Your task to perform on an android device: set the timer Image 0: 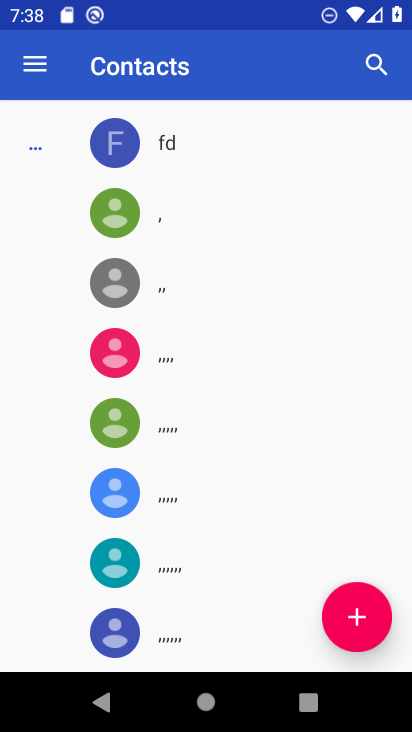
Step 0: press home button
Your task to perform on an android device: set the timer Image 1: 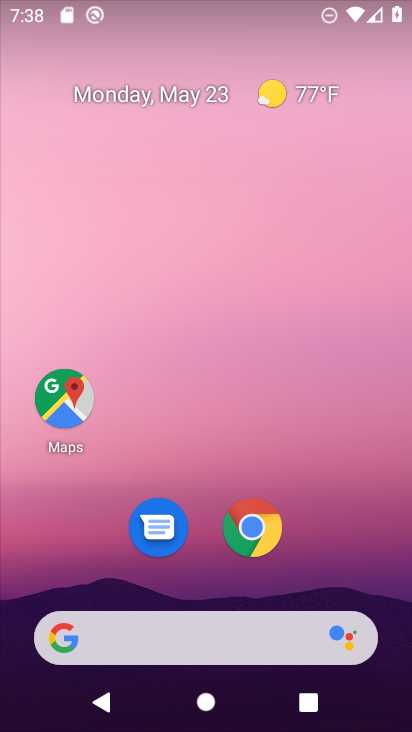
Step 1: drag from (243, 668) to (162, 107)
Your task to perform on an android device: set the timer Image 2: 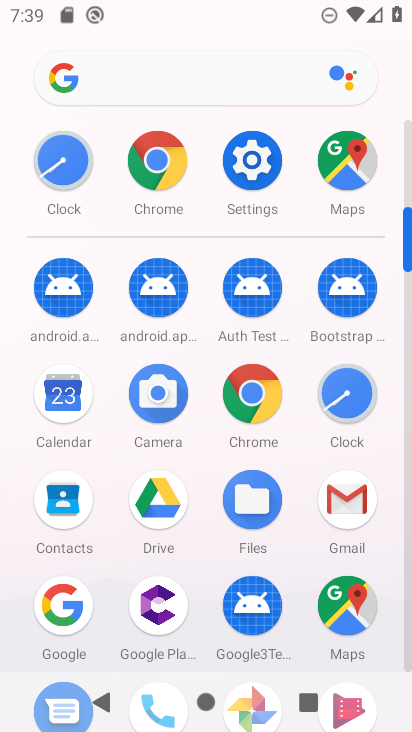
Step 2: click (68, 189)
Your task to perform on an android device: set the timer Image 3: 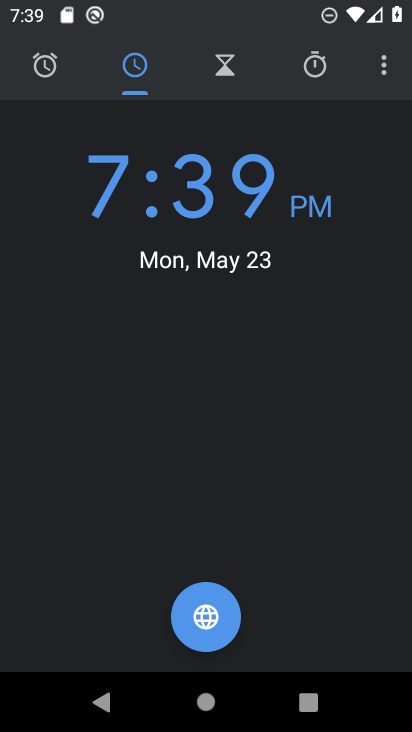
Step 3: click (311, 88)
Your task to perform on an android device: set the timer Image 4: 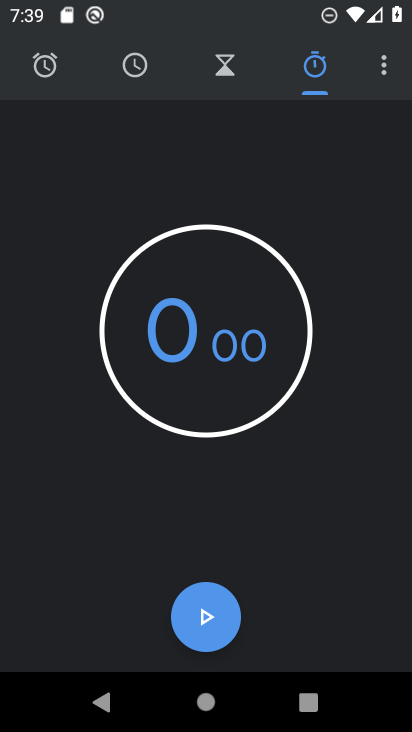
Step 4: click (229, 68)
Your task to perform on an android device: set the timer Image 5: 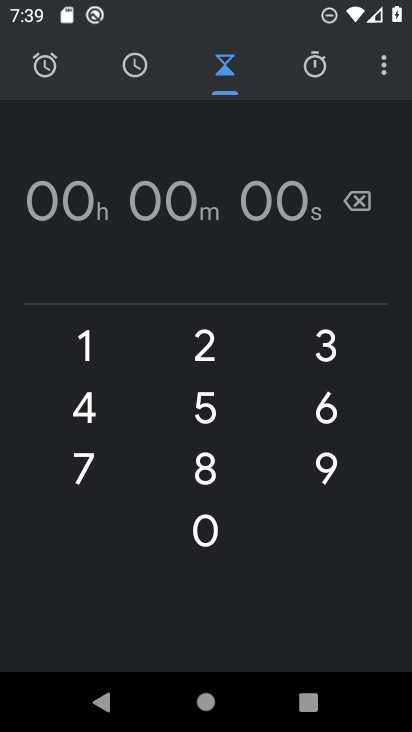
Step 5: click (215, 398)
Your task to perform on an android device: set the timer Image 6: 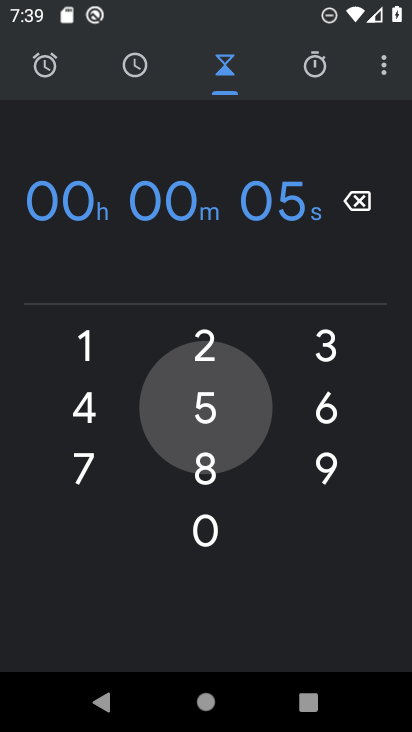
Step 6: click (210, 460)
Your task to perform on an android device: set the timer Image 7: 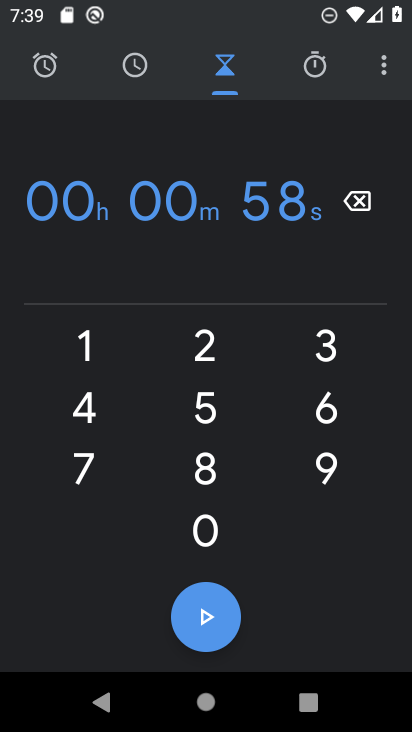
Step 7: click (113, 398)
Your task to perform on an android device: set the timer Image 8: 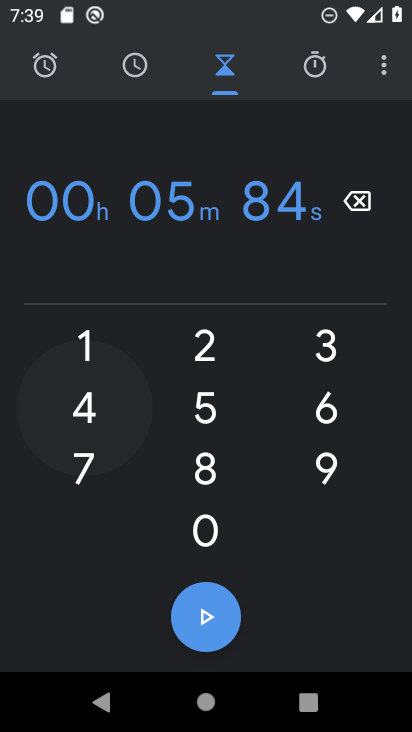
Step 8: click (108, 358)
Your task to perform on an android device: set the timer Image 9: 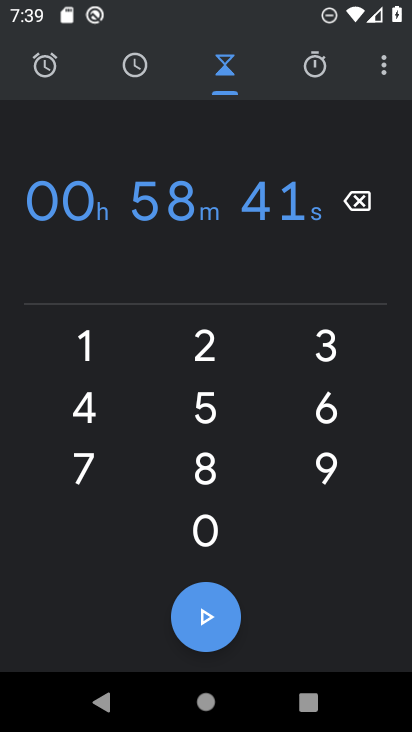
Step 9: click (212, 613)
Your task to perform on an android device: set the timer Image 10: 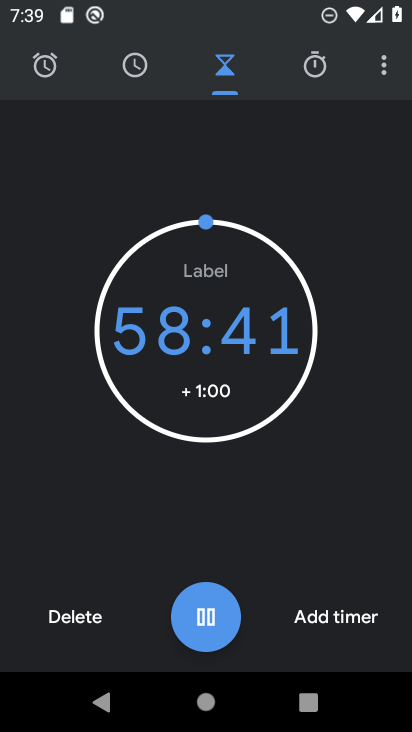
Step 10: click (211, 613)
Your task to perform on an android device: set the timer Image 11: 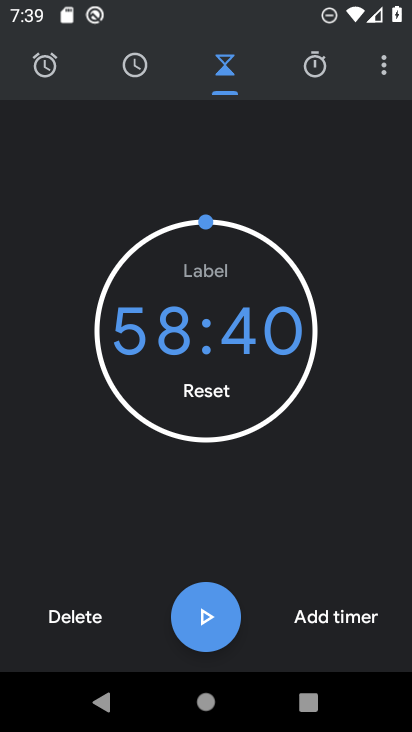
Step 11: task complete